Your task to perform on an android device: check battery use Image 0: 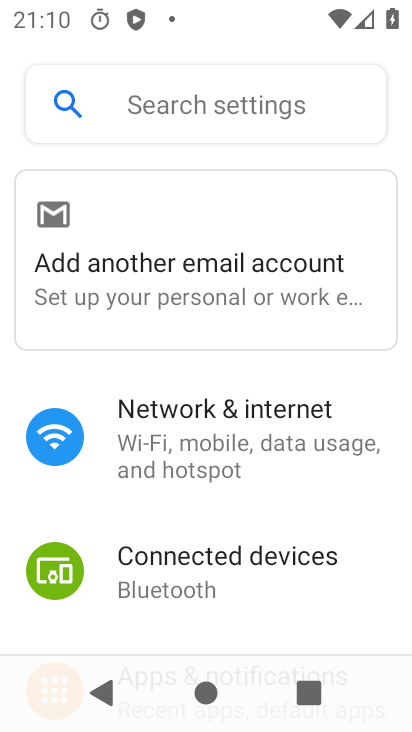
Step 0: press home button
Your task to perform on an android device: check battery use Image 1: 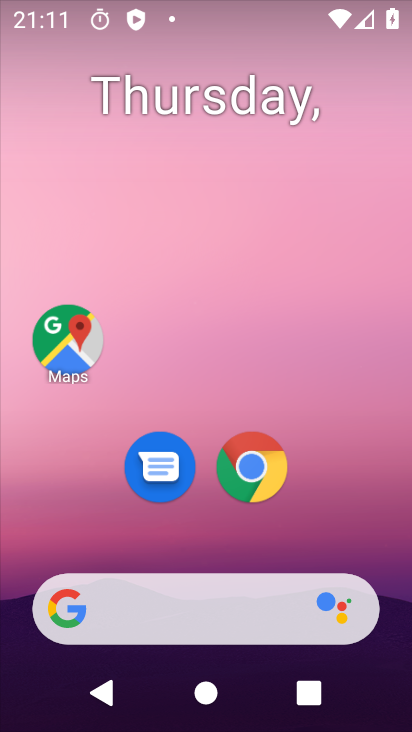
Step 1: drag from (346, 537) to (329, 82)
Your task to perform on an android device: check battery use Image 2: 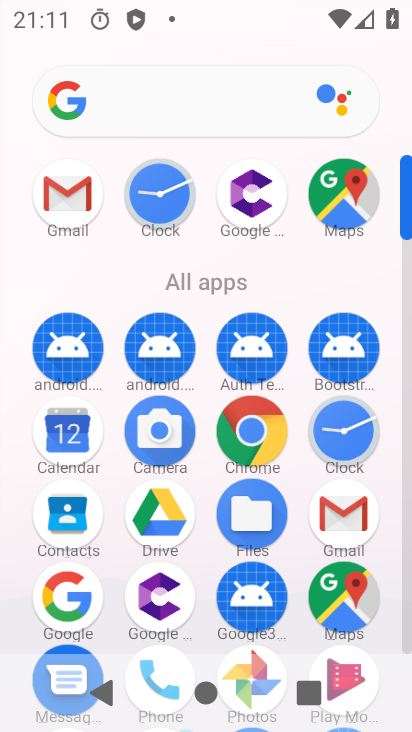
Step 2: drag from (201, 586) to (246, 1)
Your task to perform on an android device: check battery use Image 3: 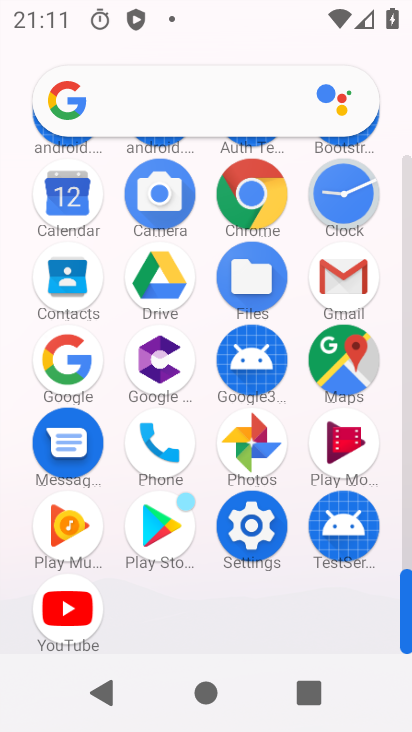
Step 3: click (248, 510)
Your task to perform on an android device: check battery use Image 4: 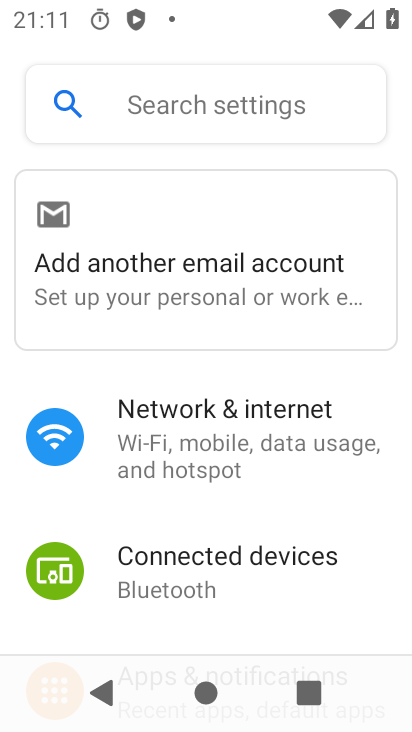
Step 4: drag from (252, 510) to (302, 46)
Your task to perform on an android device: check battery use Image 5: 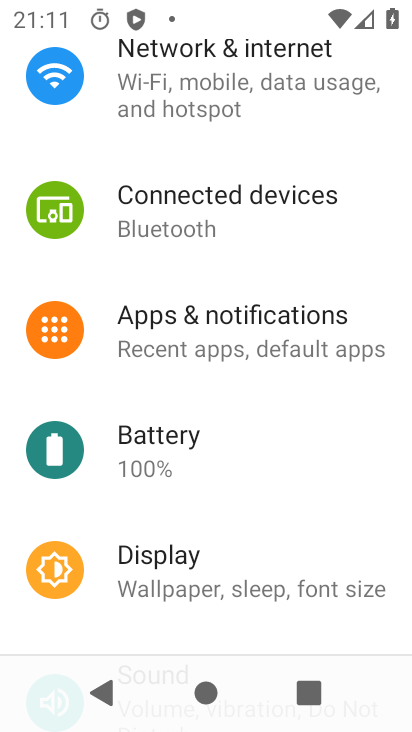
Step 5: click (184, 453)
Your task to perform on an android device: check battery use Image 6: 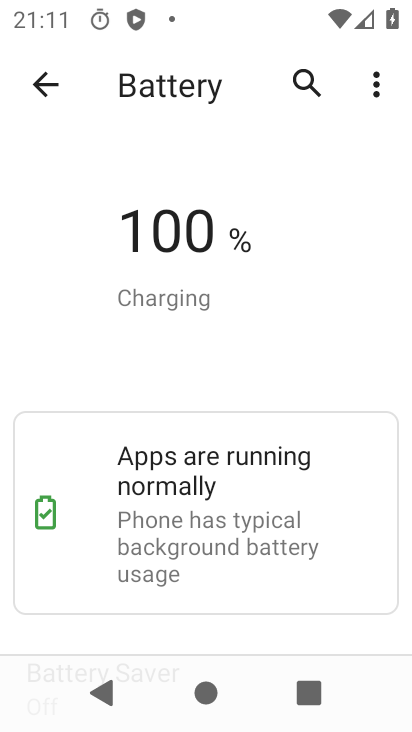
Step 6: click (380, 77)
Your task to perform on an android device: check battery use Image 7: 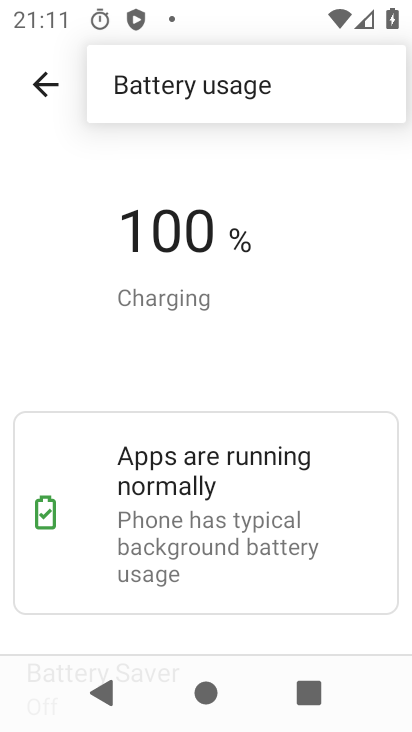
Step 7: click (266, 89)
Your task to perform on an android device: check battery use Image 8: 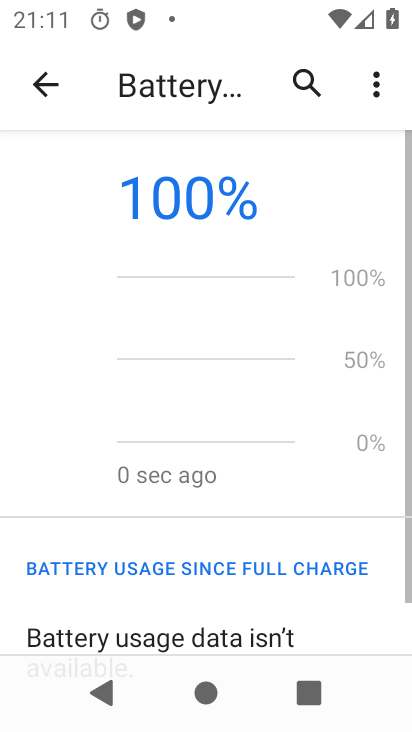
Step 8: task complete